Your task to perform on an android device: Open calendar and show me the third week of next month Image 0: 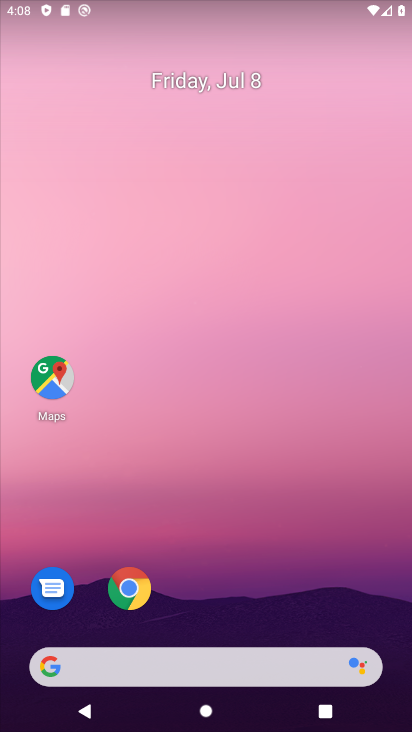
Step 0: drag from (300, 682) to (260, 80)
Your task to perform on an android device: Open calendar and show me the third week of next month Image 1: 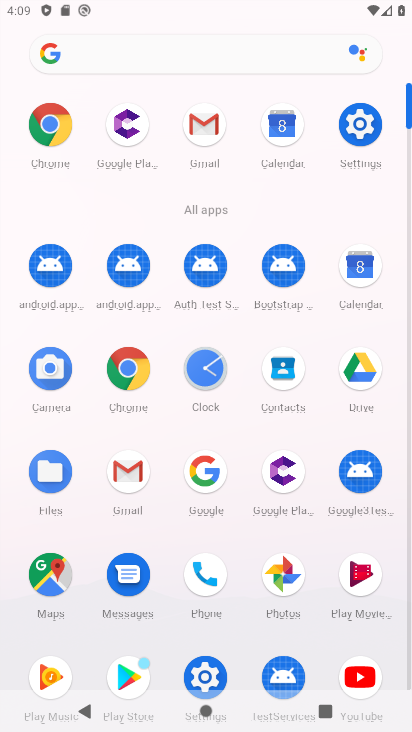
Step 1: click (349, 268)
Your task to perform on an android device: Open calendar and show me the third week of next month Image 2: 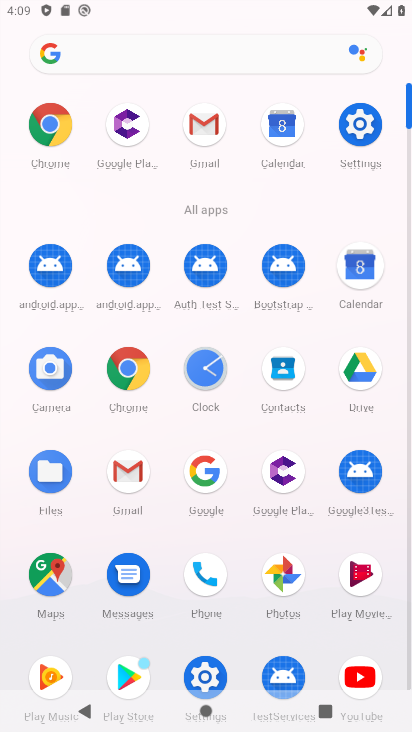
Step 2: click (360, 267)
Your task to perform on an android device: Open calendar and show me the third week of next month Image 3: 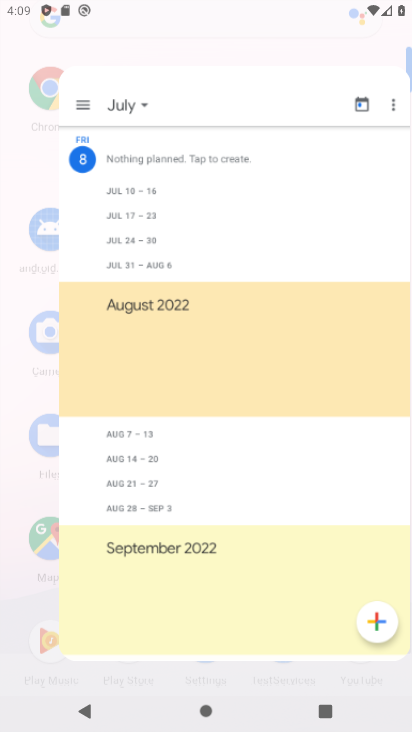
Step 3: click (362, 269)
Your task to perform on an android device: Open calendar and show me the third week of next month Image 4: 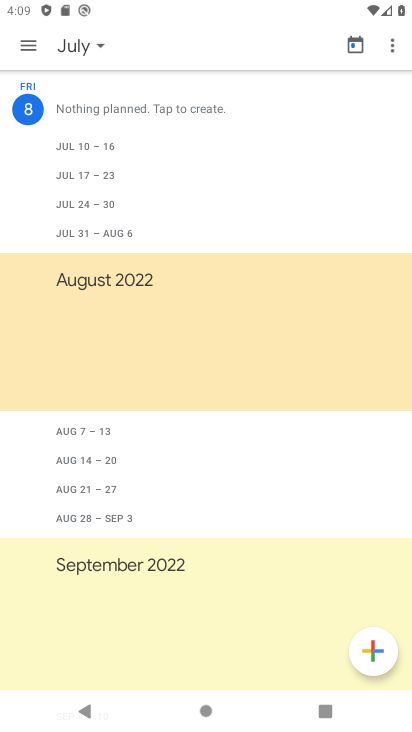
Step 4: click (99, 50)
Your task to perform on an android device: Open calendar and show me the third week of next month Image 5: 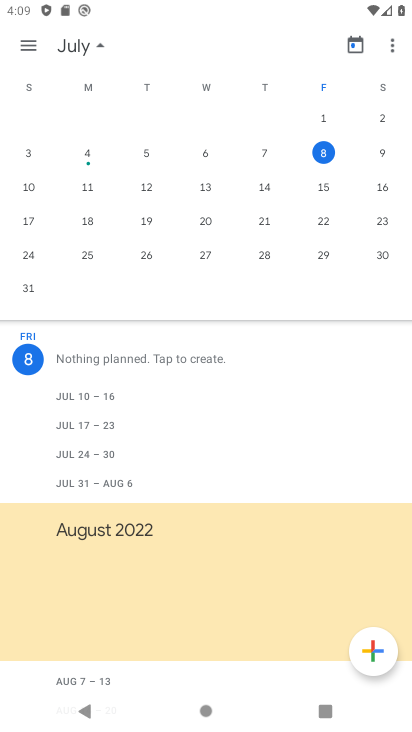
Step 5: drag from (277, 166) to (18, 237)
Your task to perform on an android device: Open calendar and show me the third week of next month Image 6: 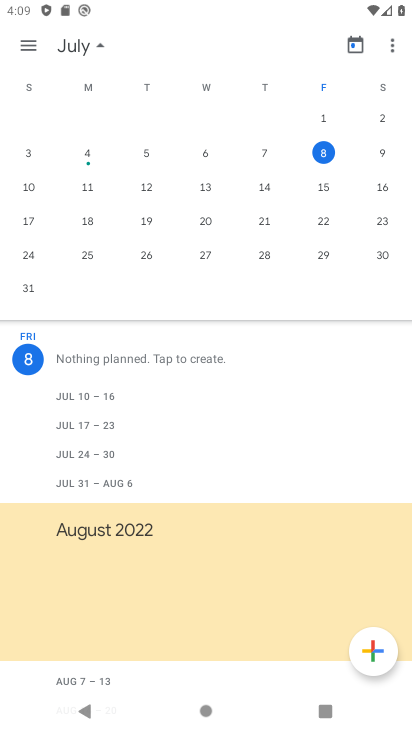
Step 6: drag from (341, 126) to (2, 298)
Your task to perform on an android device: Open calendar and show me the third week of next month Image 7: 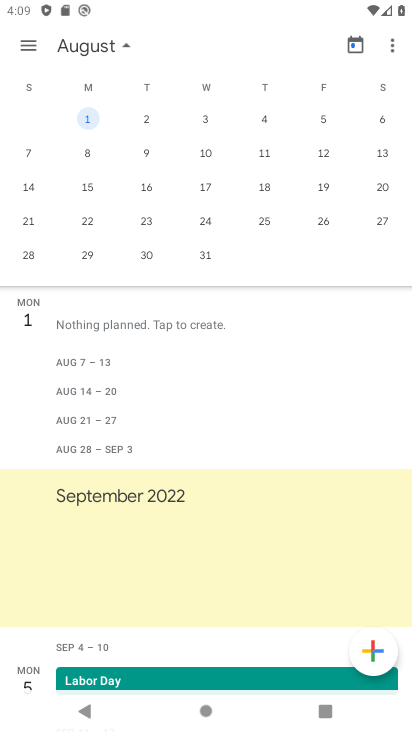
Step 7: drag from (335, 182) to (226, 357)
Your task to perform on an android device: Open calendar and show me the third week of next month Image 8: 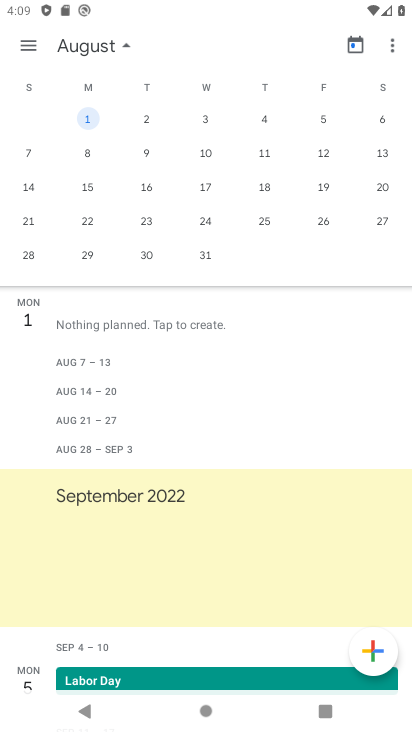
Step 8: click (86, 190)
Your task to perform on an android device: Open calendar and show me the third week of next month Image 9: 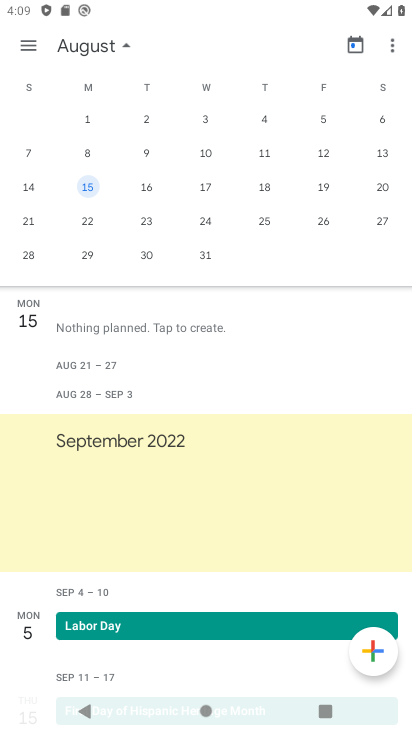
Step 9: click (100, 183)
Your task to perform on an android device: Open calendar and show me the third week of next month Image 10: 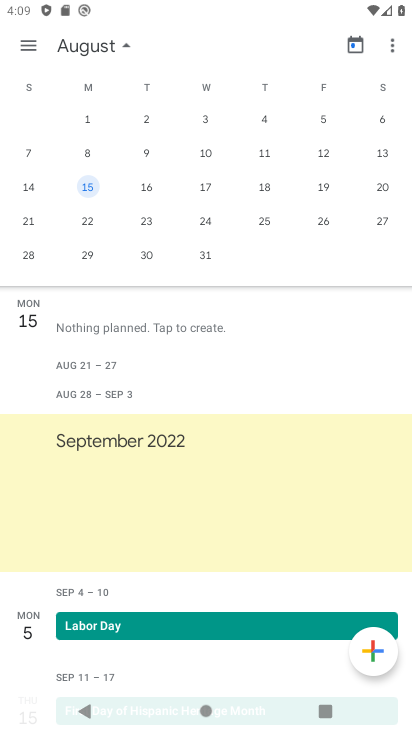
Step 10: task complete